Your task to perform on an android device: turn off notifications settings in the gmail app Image 0: 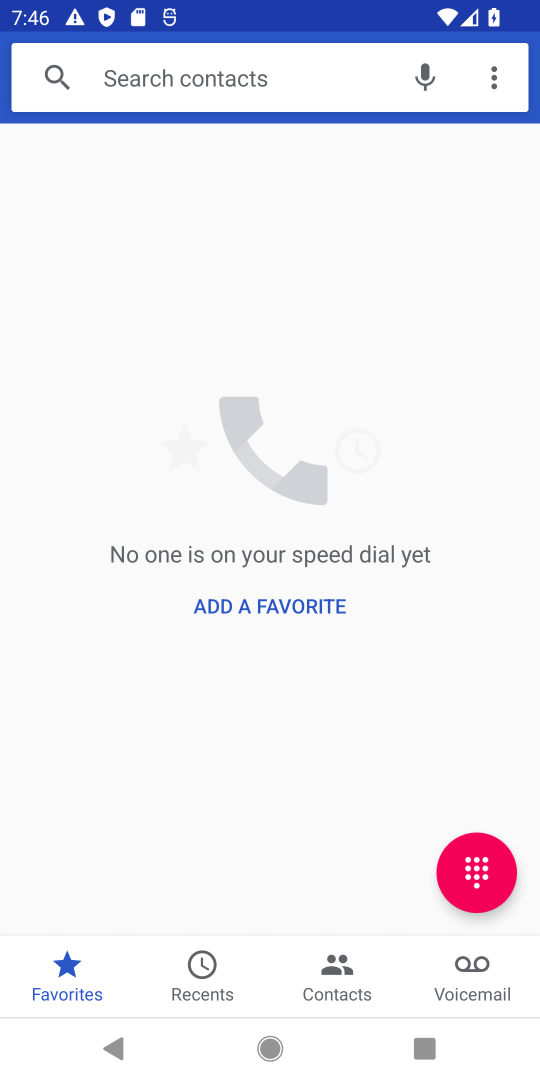
Step 0: press home button
Your task to perform on an android device: turn off notifications settings in the gmail app Image 1: 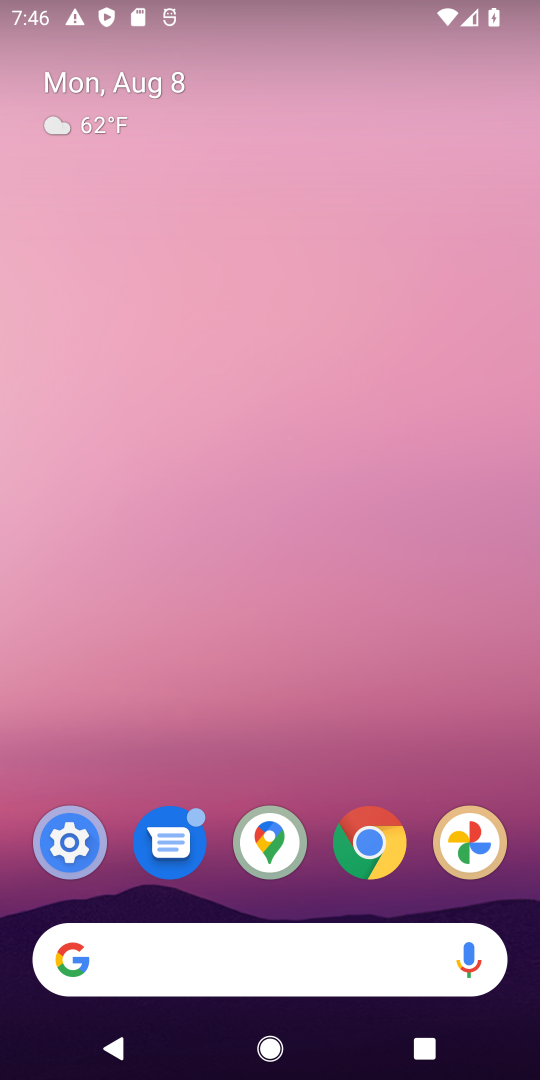
Step 1: drag from (527, 1007) to (454, 93)
Your task to perform on an android device: turn off notifications settings in the gmail app Image 2: 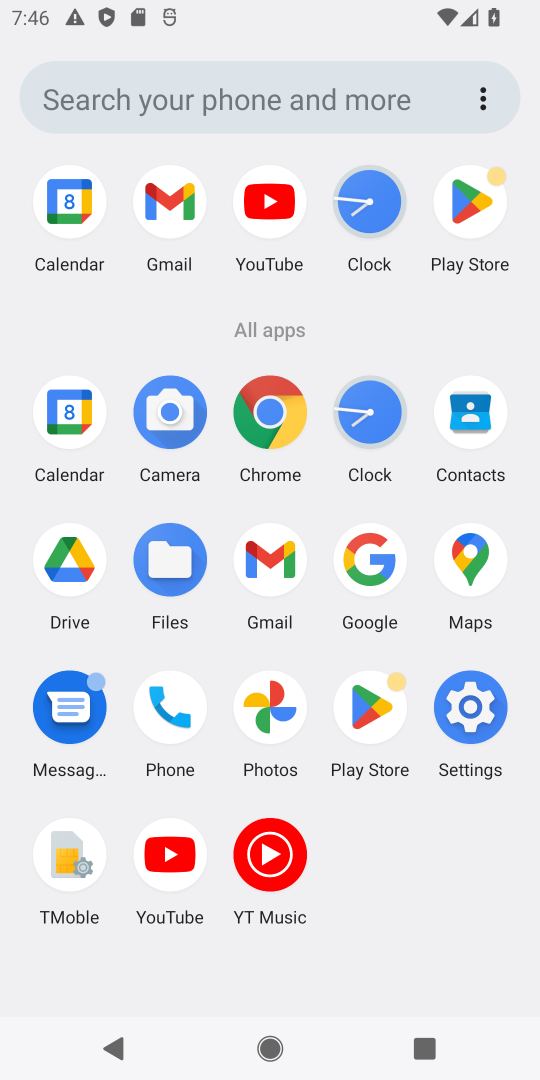
Step 2: click (289, 563)
Your task to perform on an android device: turn off notifications settings in the gmail app Image 3: 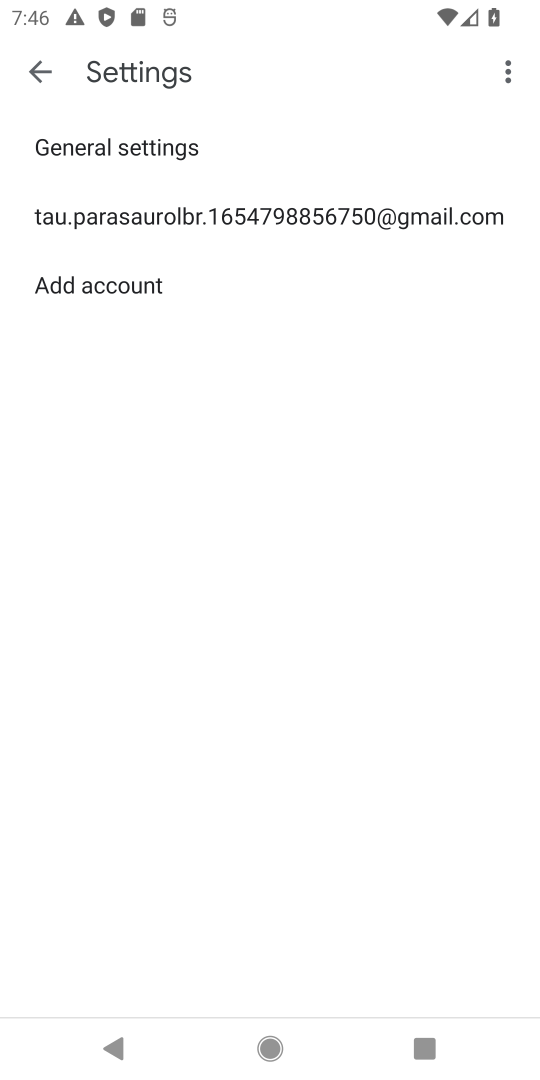
Step 3: click (100, 220)
Your task to perform on an android device: turn off notifications settings in the gmail app Image 4: 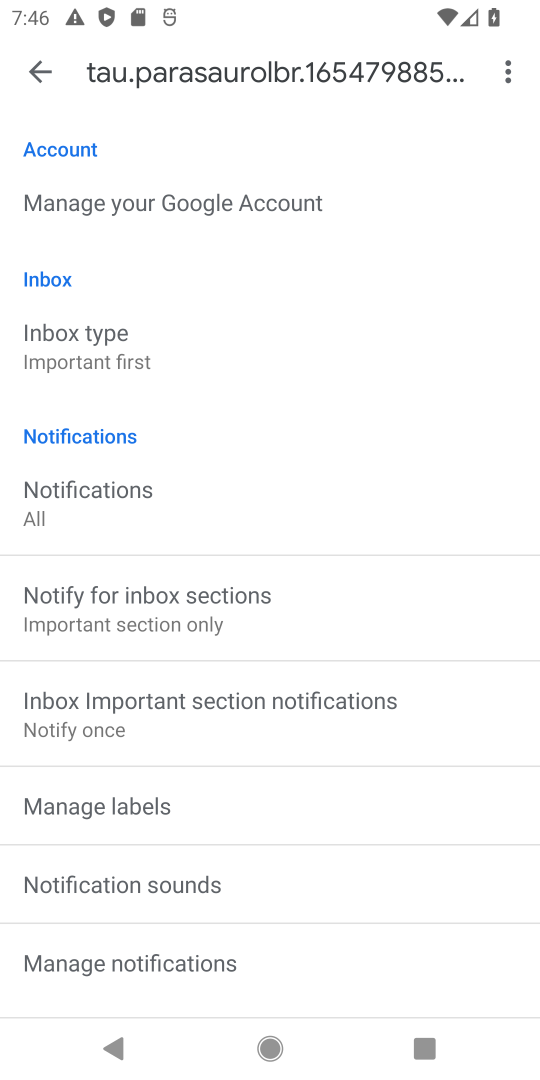
Step 4: click (79, 485)
Your task to perform on an android device: turn off notifications settings in the gmail app Image 5: 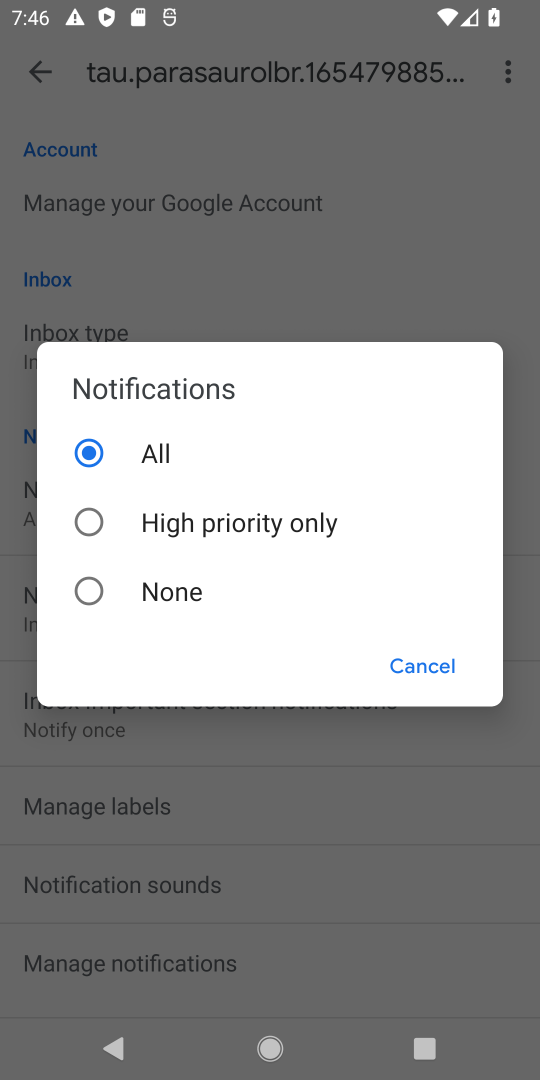
Step 5: click (84, 592)
Your task to perform on an android device: turn off notifications settings in the gmail app Image 6: 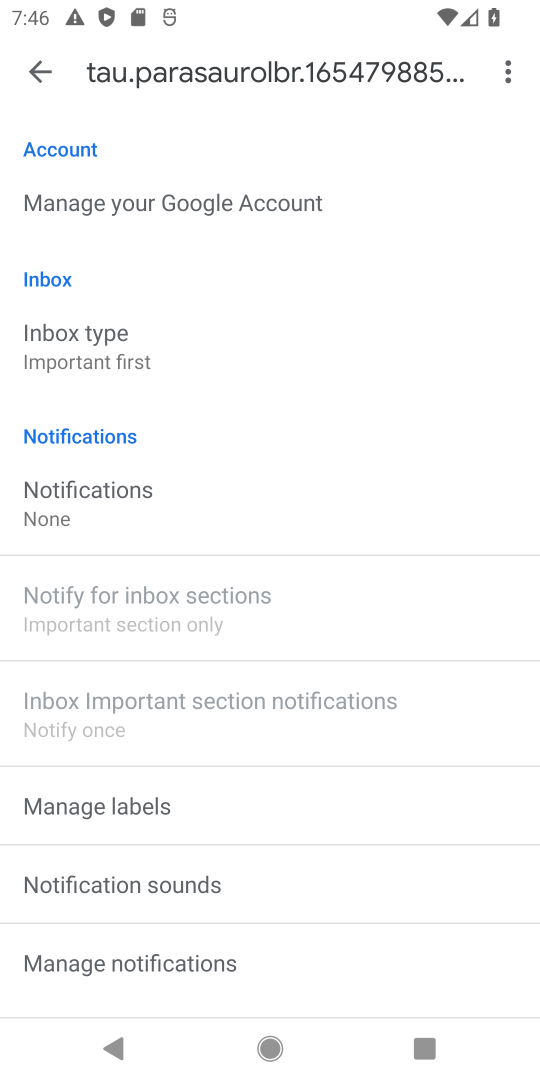
Step 6: task complete